Your task to perform on an android device: Do I have any events tomorrow? Image 0: 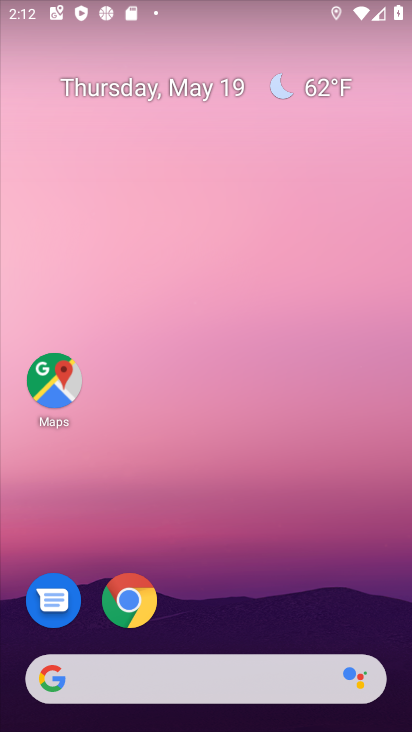
Step 0: drag from (70, 474) to (229, 188)
Your task to perform on an android device: Do I have any events tomorrow? Image 1: 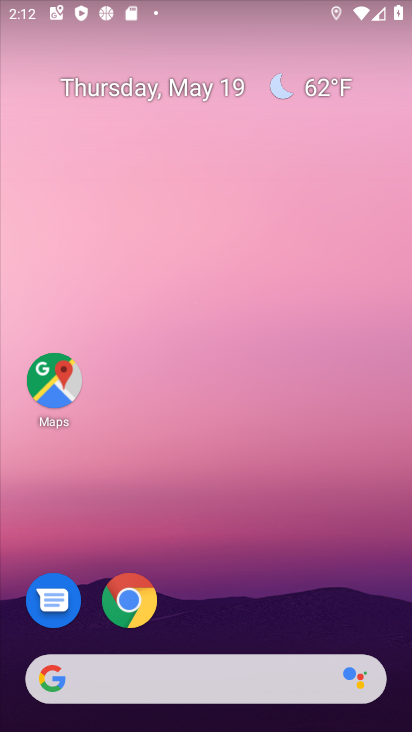
Step 1: drag from (14, 497) to (242, 69)
Your task to perform on an android device: Do I have any events tomorrow? Image 2: 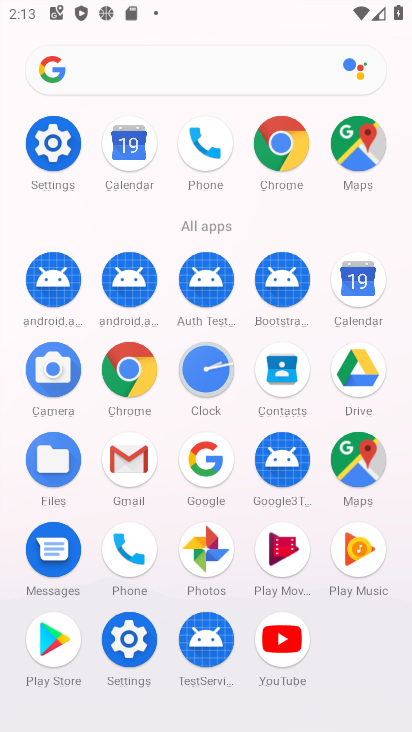
Step 2: click (368, 278)
Your task to perform on an android device: Do I have any events tomorrow? Image 3: 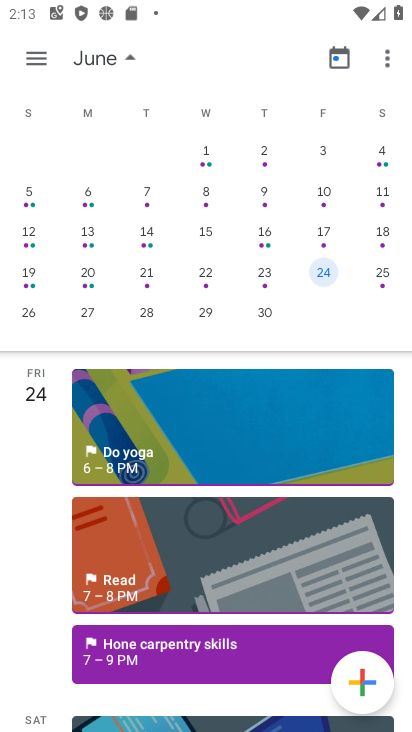
Step 3: drag from (137, 235) to (394, 195)
Your task to perform on an android device: Do I have any events tomorrow? Image 4: 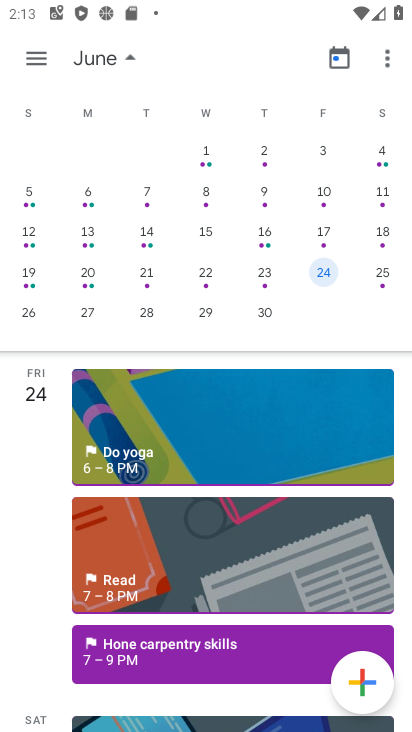
Step 4: drag from (118, 217) to (398, 183)
Your task to perform on an android device: Do I have any events tomorrow? Image 5: 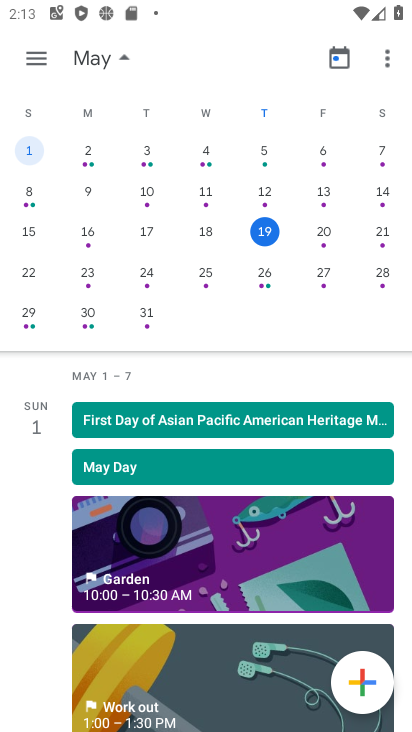
Step 5: click (332, 227)
Your task to perform on an android device: Do I have any events tomorrow? Image 6: 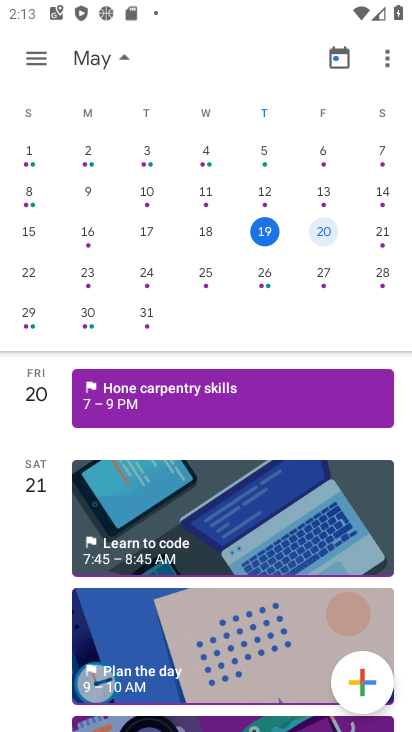
Step 6: task complete